Your task to perform on an android device: Open Google Chrome and open the bookmarks view Image 0: 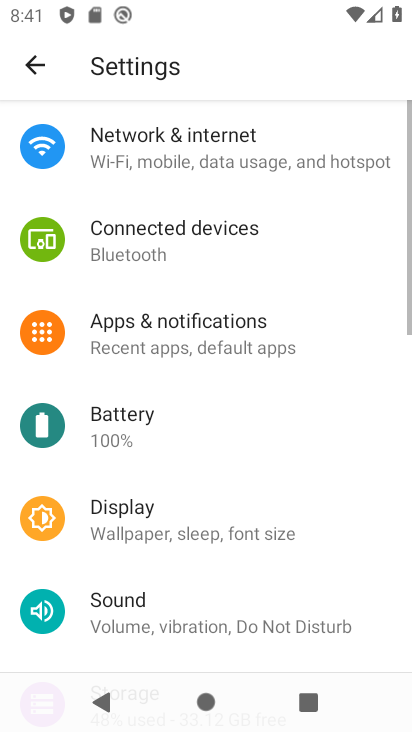
Step 0: press home button
Your task to perform on an android device: Open Google Chrome and open the bookmarks view Image 1: 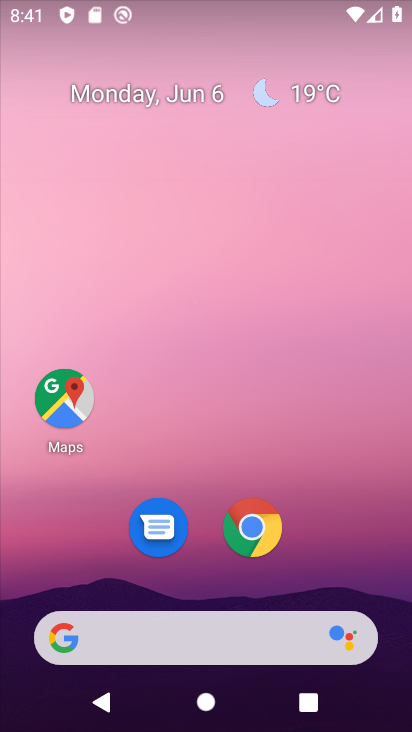
Step 1: click (262, 540)
Your task to perform on an android device: Open Google Chrome and open the bookmarks view Image 2: 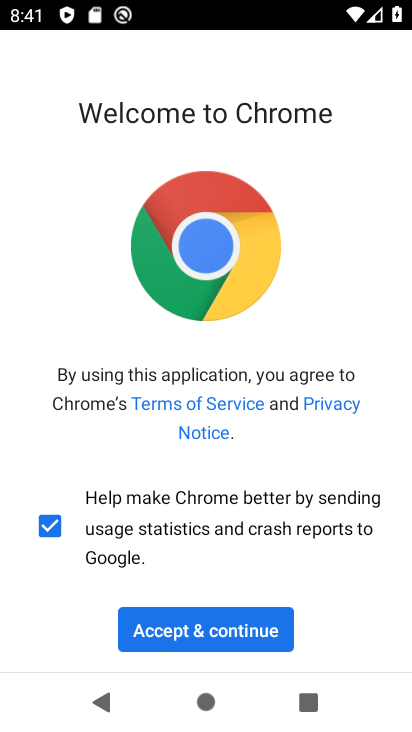
Step 2: click (191, 635)
Your task to perform on an android device: Open Google Chrome and open the bookmarks view Image 3: 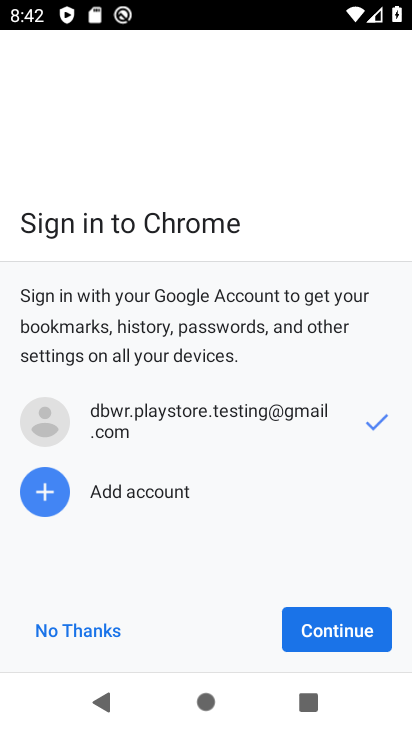
Step 3: click (297, 633)
Your task to perform on an android device: Open Google Chrome and open the bookmarks view Image 4: 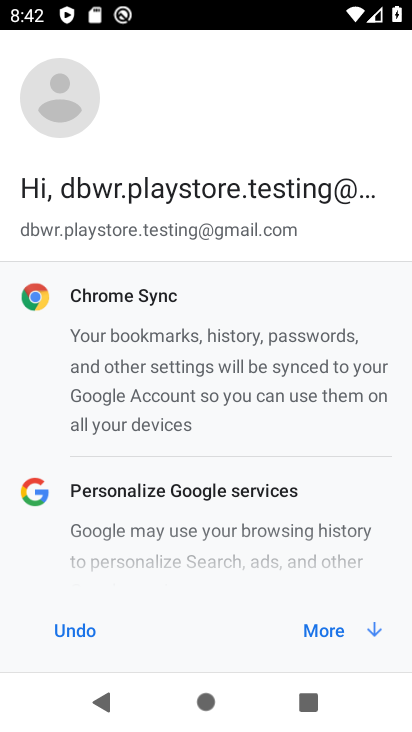
Step 4: click (330, 629)
Your task to perform on an android device: Open Google Chrome and open the bookmarks view Image 5: 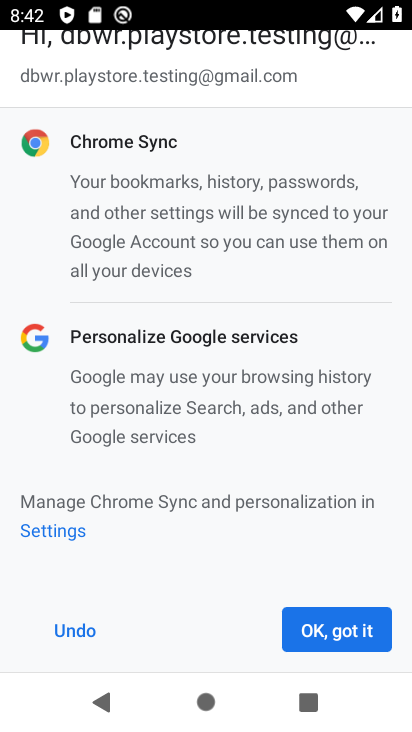
Step 5: click (330, 629)
Your task to perform on an android device: Open Google Chrome and open the bookmarks view Image 6: 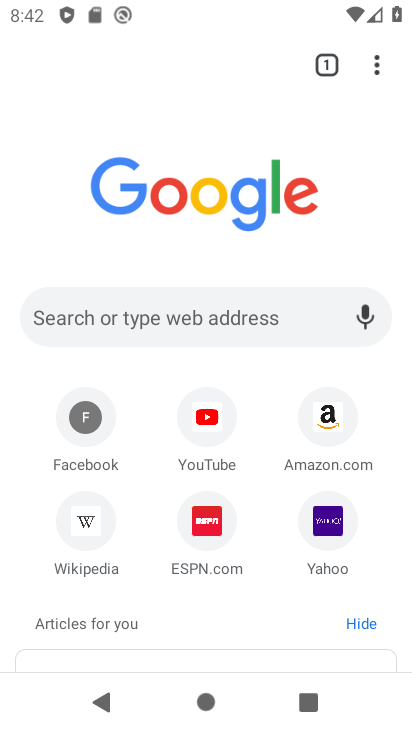
Step 6: click (379, 62)
Your task to perform on an android device: Open Google Chrome and open the bookmarks view Image 7: 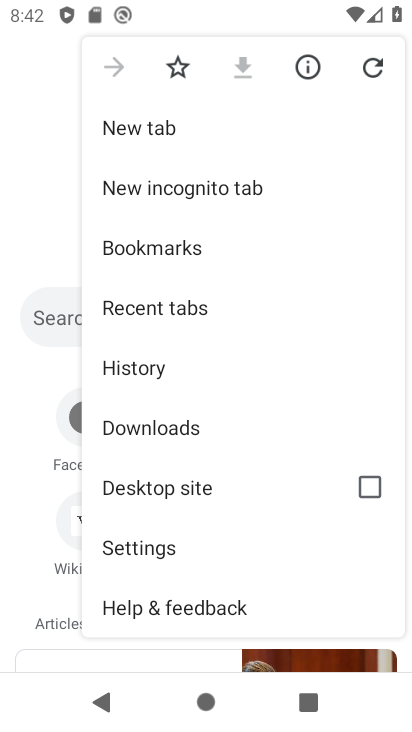
Step 7: click (196, 245)
Your task to perform on an android device: Open Google Chrome and open the bookmarks view Image 8: 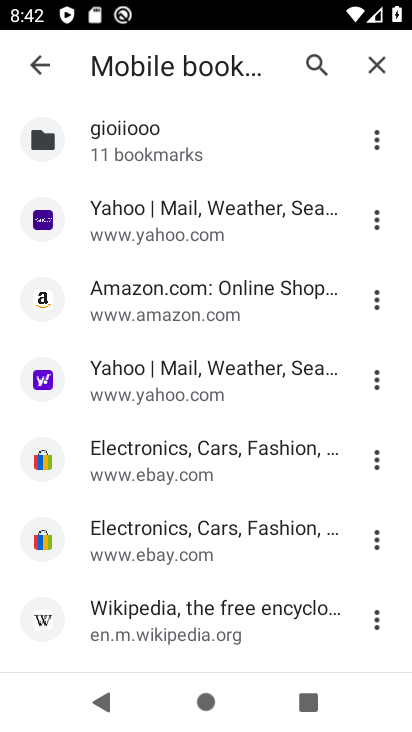
Step 8: task complete